Your task to perform on an android device: Go to location settings Image 0: 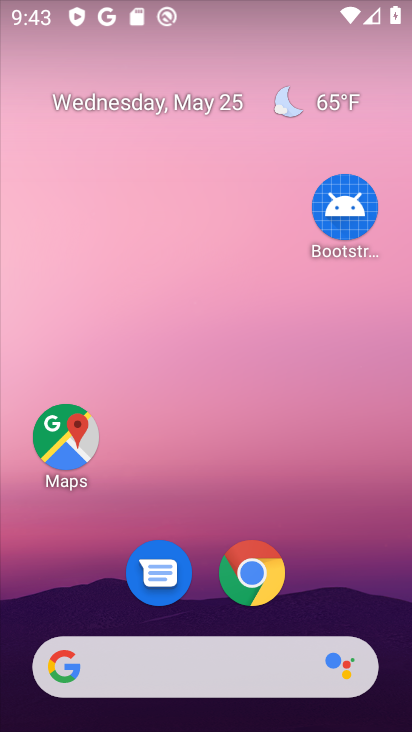
Step 0: drag from (349, 575) to (300, 20)
Your task to perform on an android device: Go to location settings Image 1: 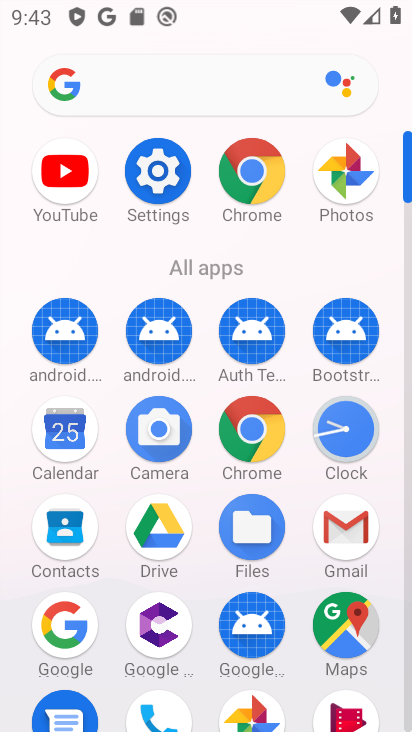
Step 1: click (152, 162)
Your task to perform on an android device: Go to location settings Image 2: 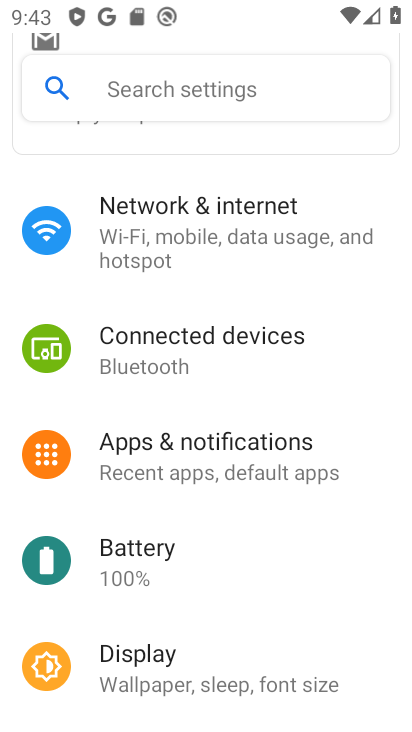
Step 2: drag from (278, 603) to (249, 249)
Your task to perform on an android device: Go to location settings Image 3: 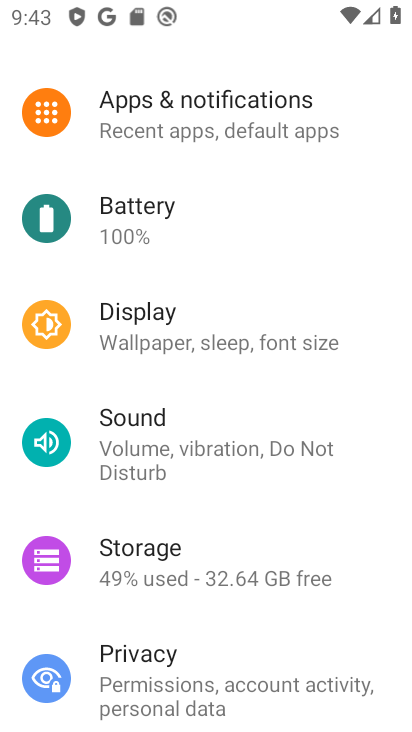
Step 3: drag from (255, 645) to (260, 287)
Your task to perform on an android device: Go to location settings Image 4: 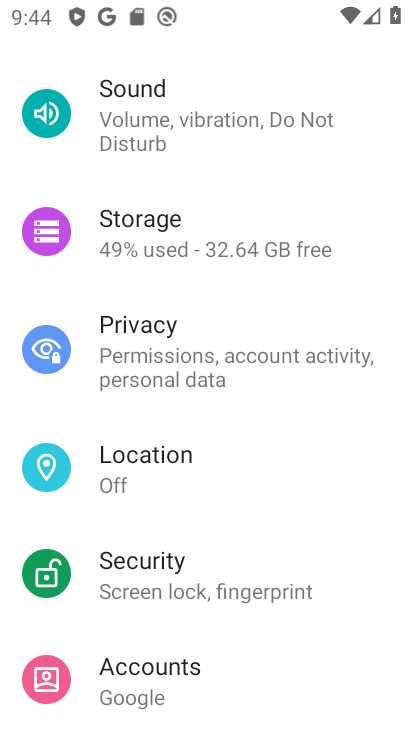
Step 4: click (204, 454)
Your task to perform on an android device: Go to location settings Image 5: 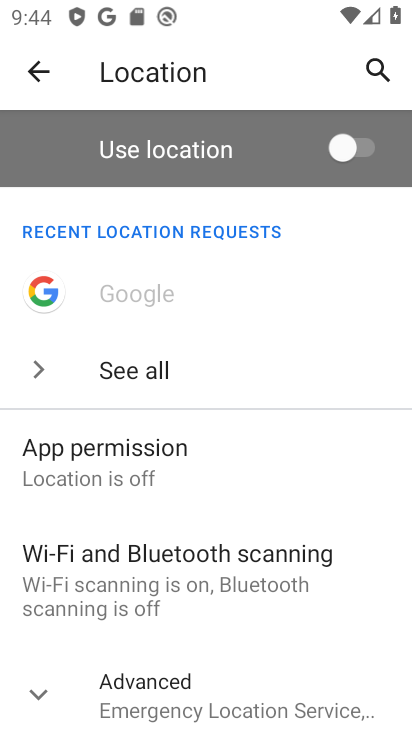
Step 5: task complete